Your task to perform on an android device: delete the emails in spam in the gmail app Image 0: 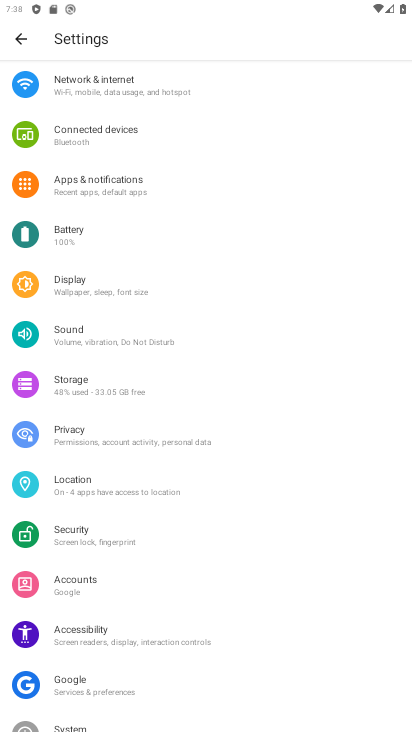
Step 0: press home button
Your task to perform on an android device: delete the emails in spam in the gmail app Image 1: 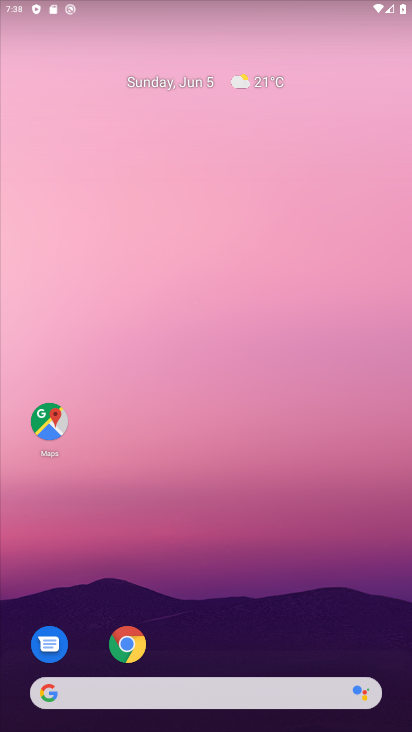
Step 1: drag from (76, 483) to (208, 212)
Your task to perform on an android device: delete the emails in spam in the gmail app Image 2: 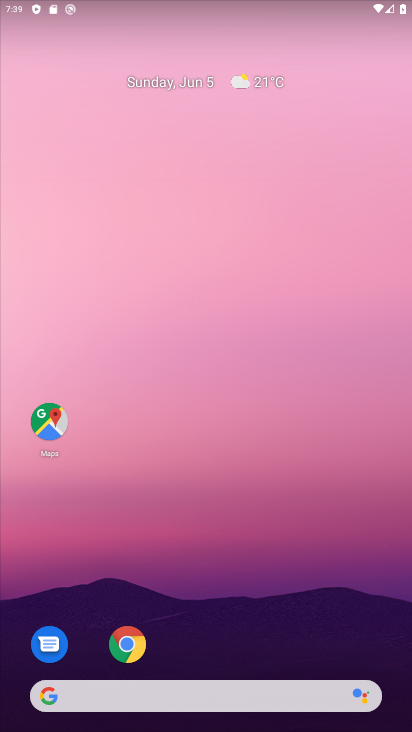
Step 2: drag from (7, 647) to (190, 201)
Your task to perform on an android device: delete the emails in spam in the gmail app Image 3: 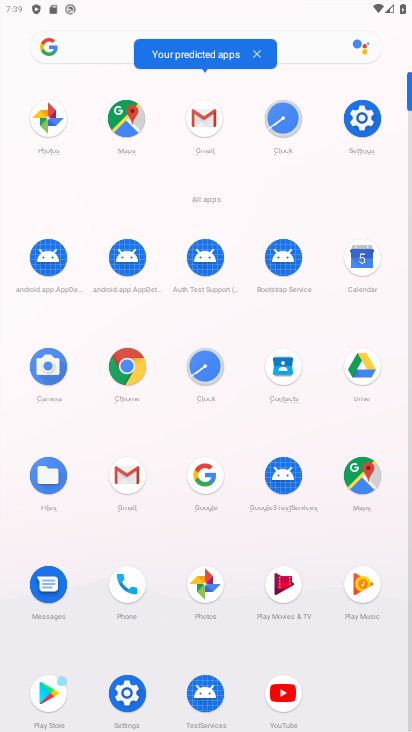
Step 3: click (212, 111)
Your task to perform on an android device: delete the emails in spam in the gmail app Image 4: 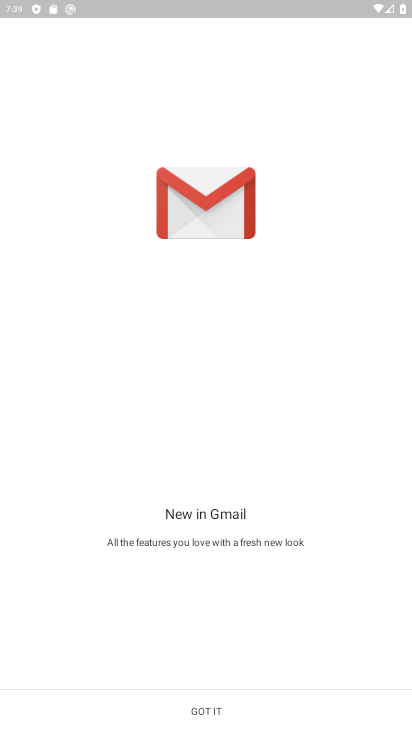
Step 4: click (192, 709)
Your task to perform on an android device: delete the emails in spam in the gmail app Image 5: 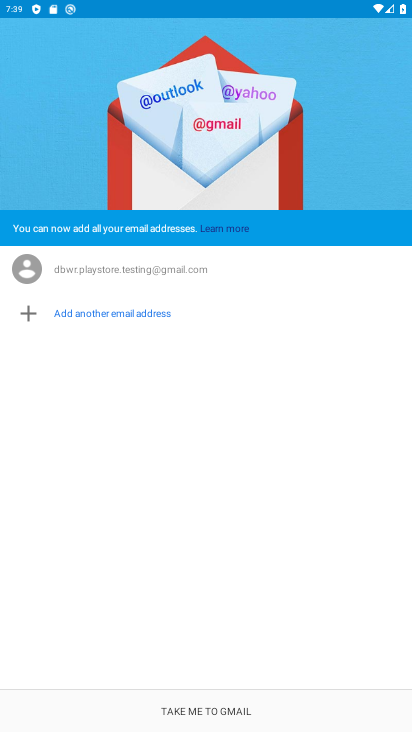
Step 5: click (229, 710)
Your task to perform on an android device: delete the emails in spam in the gmail app Image 6: 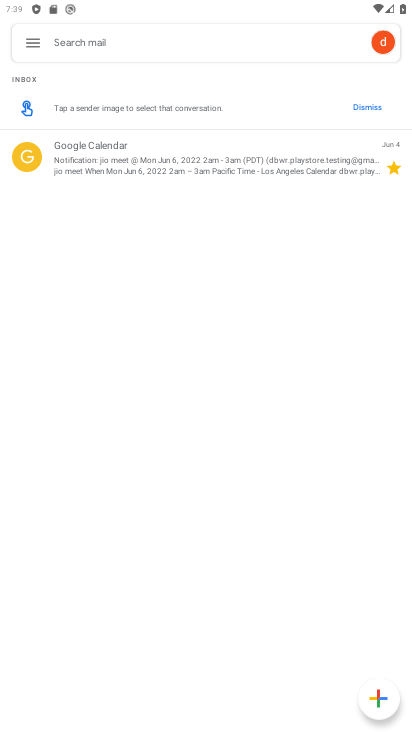
Step 6: click (32, 43)
Your task to perform on an android device: delete the emails in spam in the gmail app Image 7: 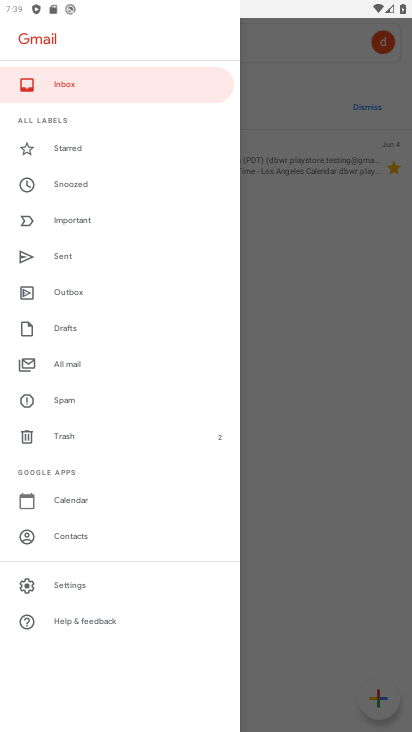
Step 7: click (80, 403)
Your task to perform on an android device: delete the emails in spam in the gmail app Image 8: 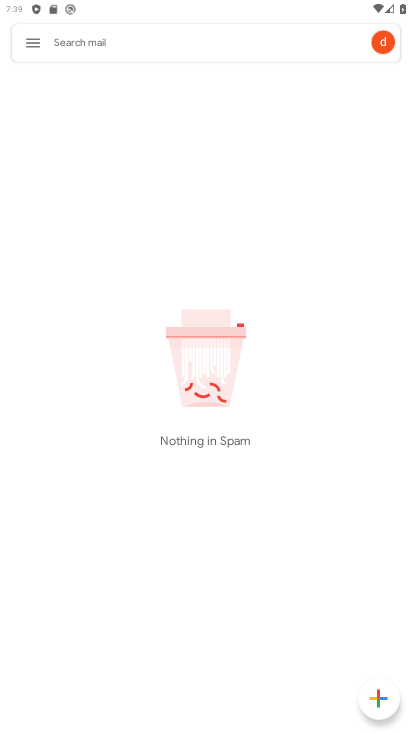
Step 8: task complete